Your task to perform on an android device: add a label to a message in the gmail app Image 0: 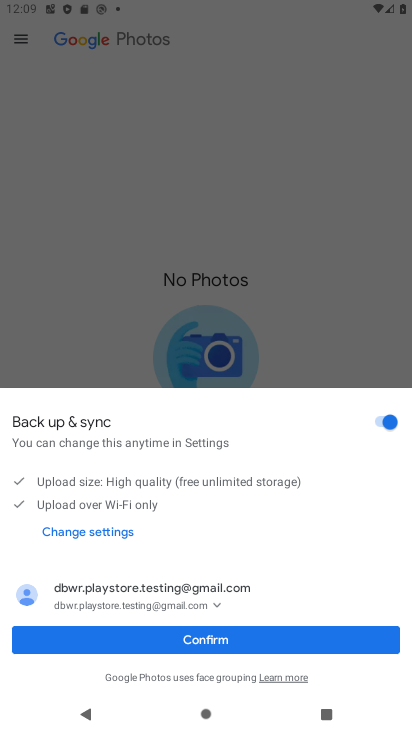
Step 0: press home button
Your task to perform on an android device: add a label to a message in the gmail app Image 1: 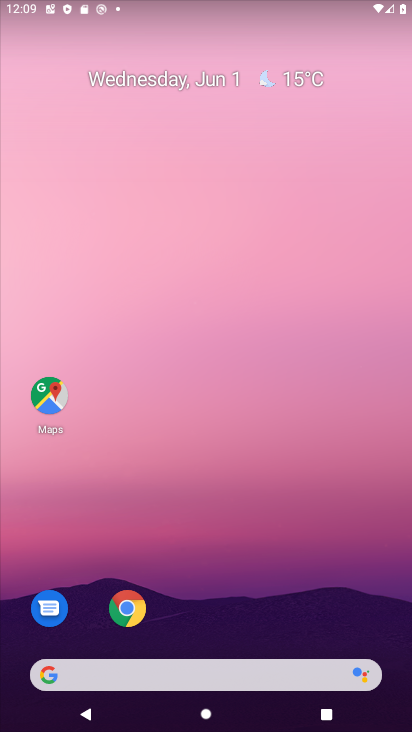
Step 1: drag from (229, 615) to (252, 22)
Your task to perform on an android device: add a label to a message in the gmail app Image 2: 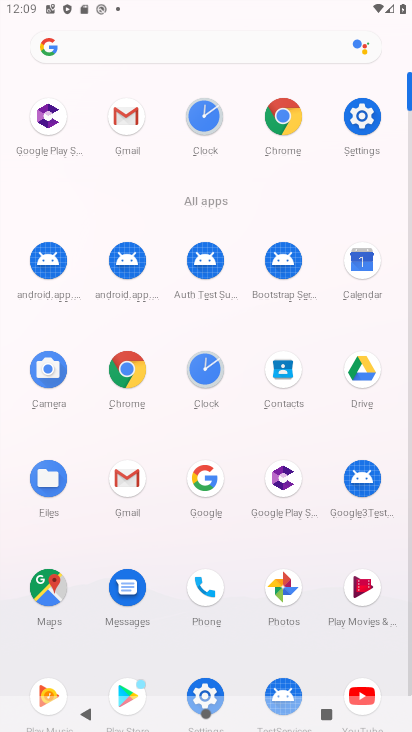
Step 2: click (118, 493)
Your task to perform on an android device: add a label to a message in the gmail app Image 3: 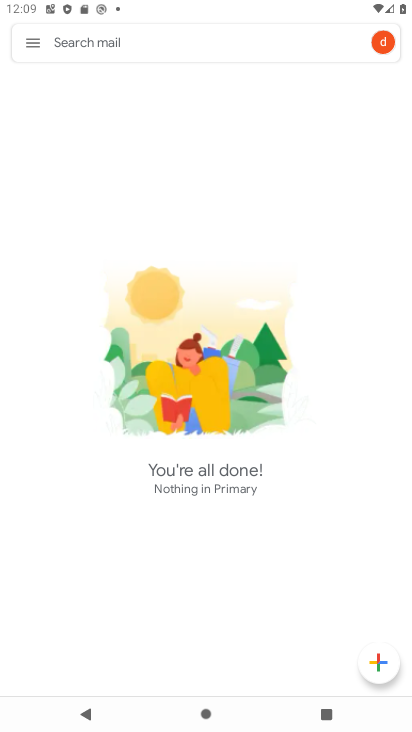
Step 3: click (28, 32)
Your task to perform on an android device: add a label to a message in the gmail app Image 4: 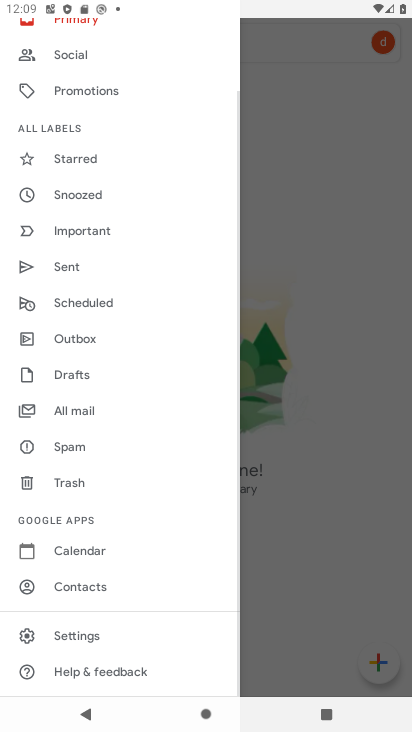
Step 4: click (85, 405)
Your task to perform on an android device: add a label to a message in the gmail app Image 5: 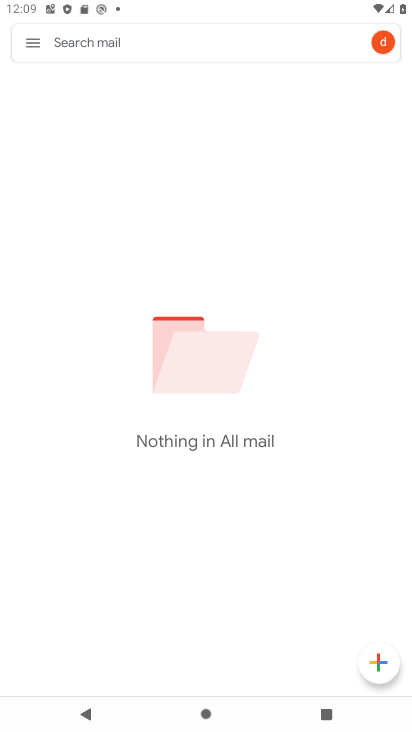
Step 5: task complete